Your task to perform on an android device: Go to Google Image 0: 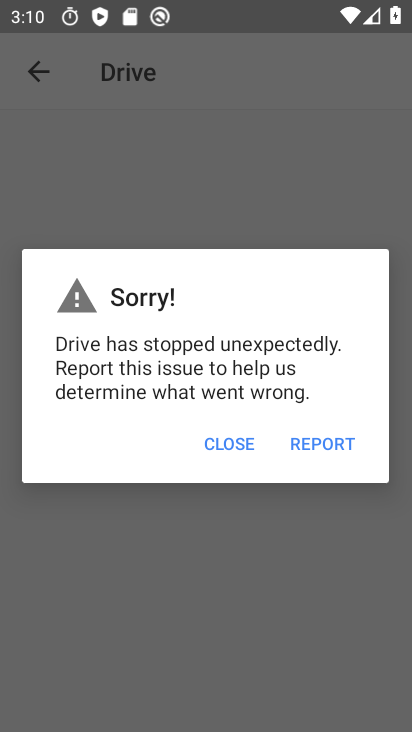
Step 0: drag from (215, 726) to (306, 571)
Your task to perform on an android device: Go to Google Image 1: 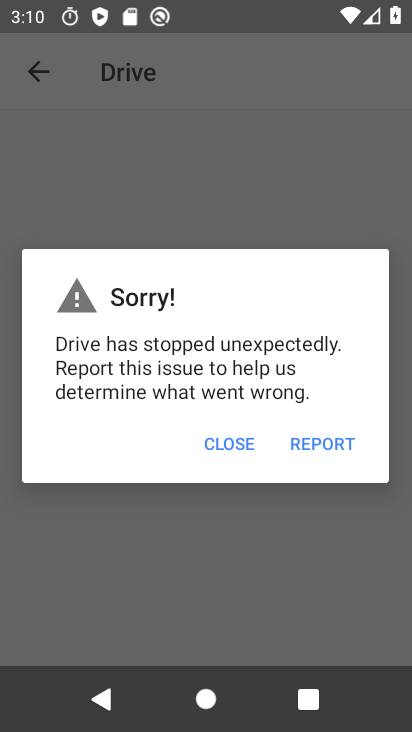
Step 1: press home button
Your task to perform on an android device: Go to Google Image 2: 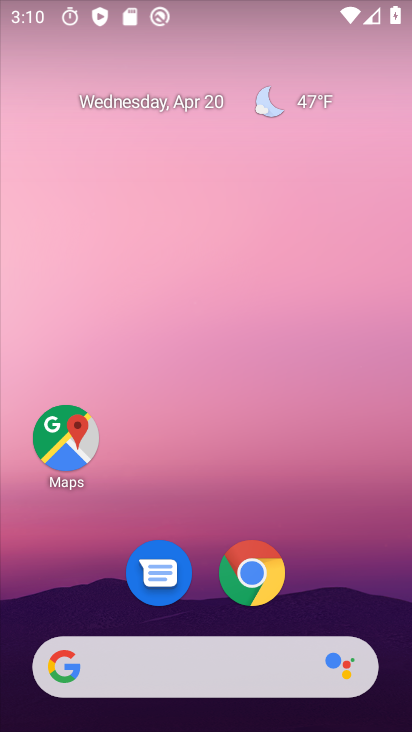
Step 2: drag from (196, 722) to (198, 138)
Your task to perform on an android device: Go to Google Image 3: 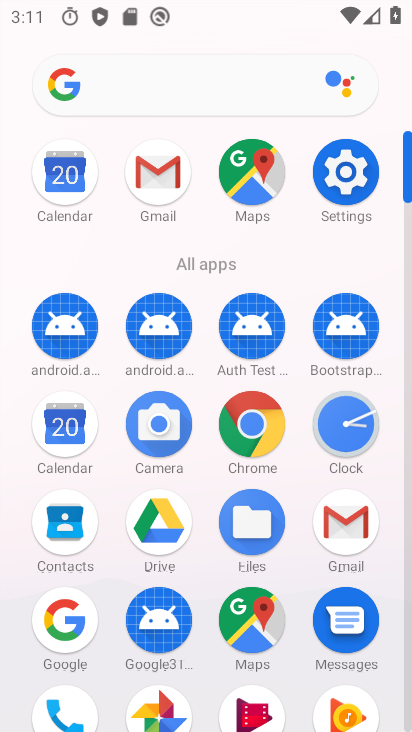
Step 3: click (70, 614)
Your task to perform on an android device: Go to Google Image 4: 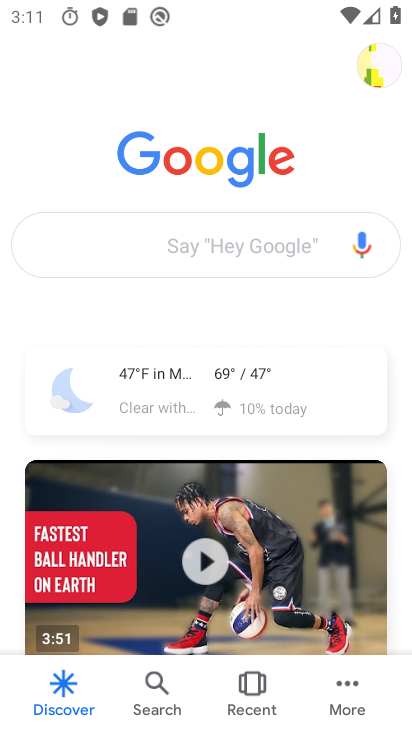
Step 4: task complete